Your task to perform on an android device: open app "DoorDash - Food Delivery" Image 0: 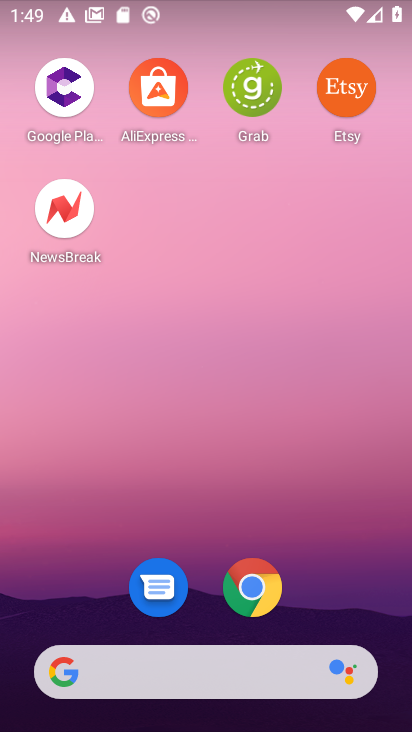
Step 0: drag from (194, 540) to (270, 37)
Your task to perform on an android device: open app "DoorDash - Food Delivery" Image 1: 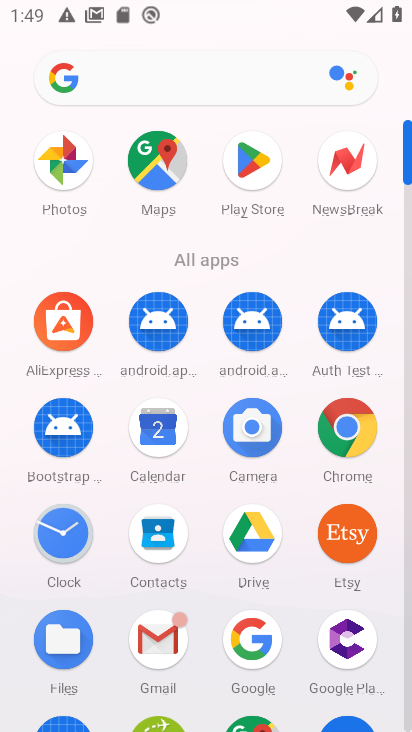
Step 1: click (263, 158)
Your task to perform on an android device: open app "DoorDash - Food Delivery" Image 2: 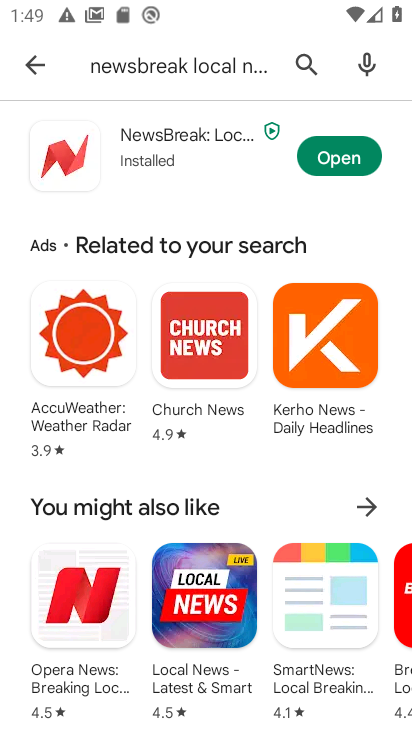
Step 2: click (301, 53)
Your task to perform on an android device: open app "DoorDash - Food Delivery" Image 3: 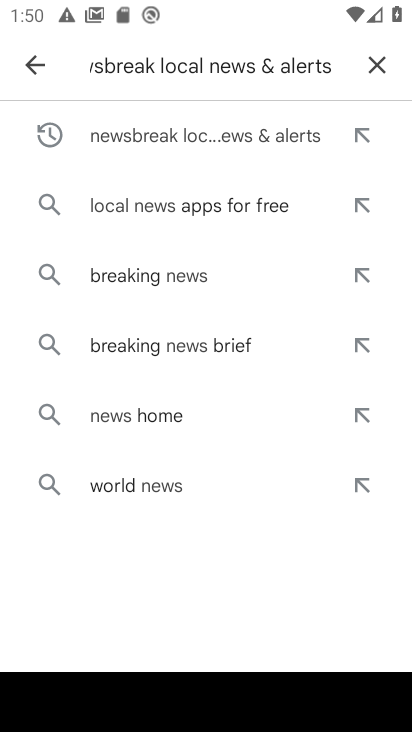
Step 3: click (368, 69)
Your task to perform on an android device: open app "DoorDash - Food Delivery" Image 4: 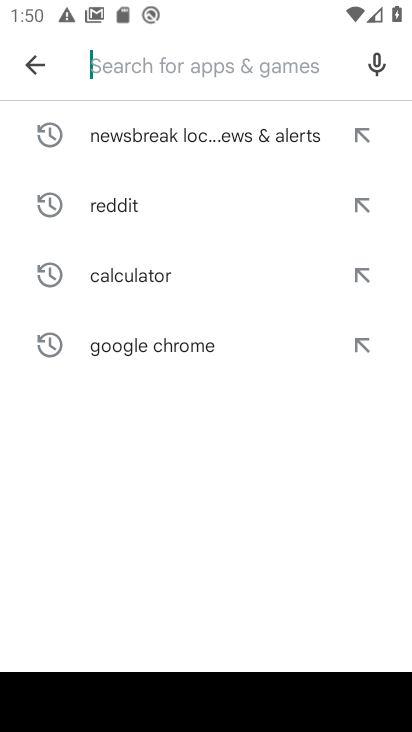
Step 4: type "DoorDash - Food Delivery"
Your task to perform on an android device: open app "DoorDash - Food Delivery" Image 5: 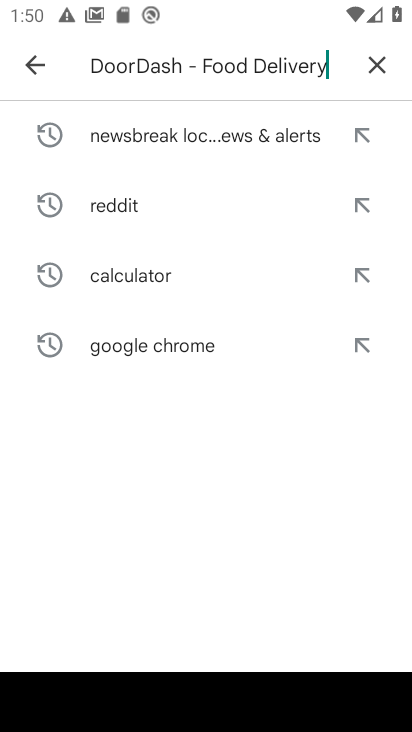
Step 5: type ""
Your task to perform on an android device: open app "DoorDash - Food Delivery" Image 6: 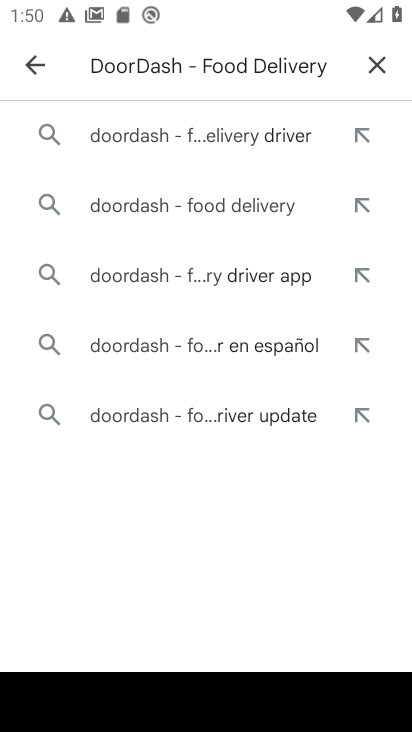
Step 6: click (236, 140)
Your task to perform on an android device: open app "DoorDash - Food Delivery" Image 7: 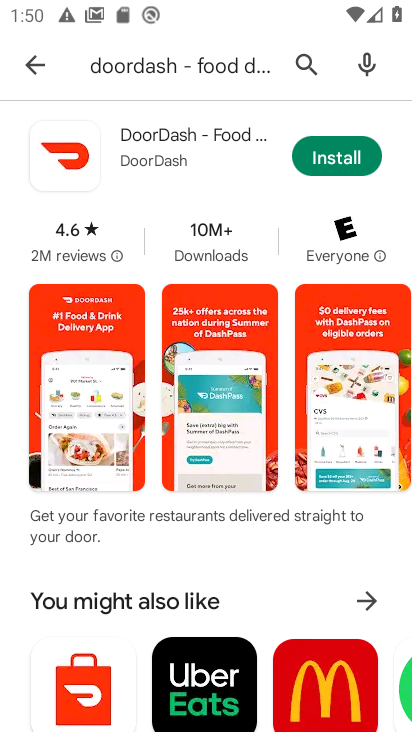
Step 7: task complete